Your task to perform on an android device: create a new album in the google photos Image 0: 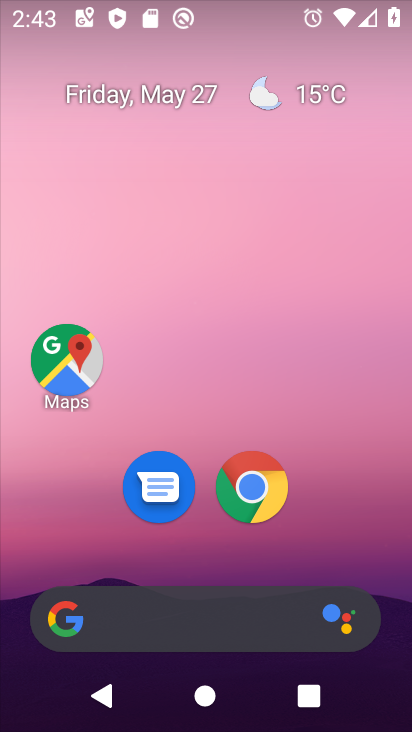
Step 0: drag from (192, 539) to (194, 222)
Your task to perform on an android device: create a new album in the google photos Image 1: 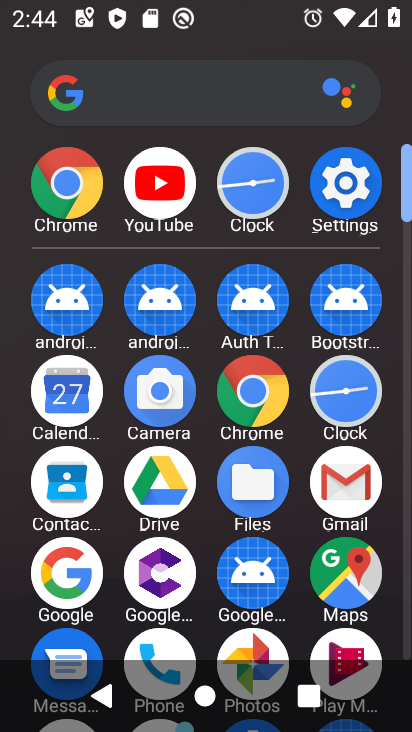
Step 1: drag from (212, 603) to (211, 238)
Your task to perform on an android device: create a new album in the google photos Image 2: 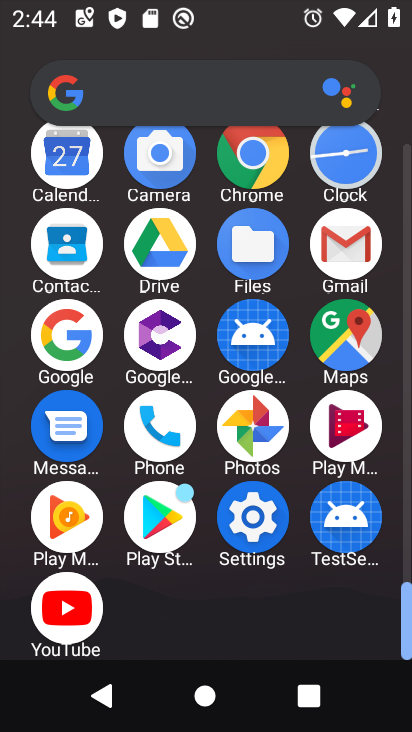
Step 2: click (260, 420)
Your task to perform on an android device: create a new album in the google photos Image 3: 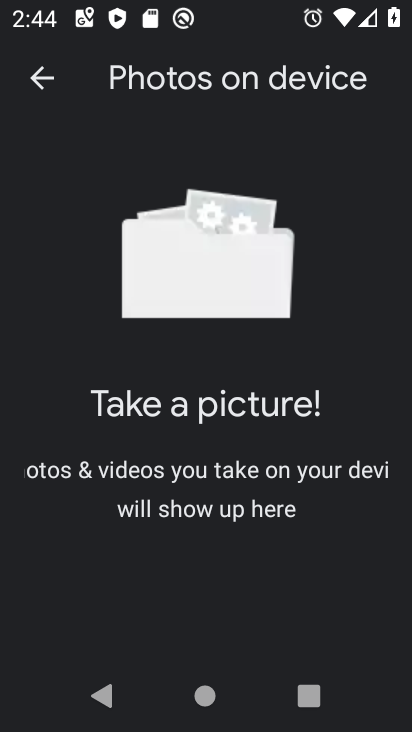
Step 3: click (40, 103)
Your task to perform on an android device: create a new album in the google photos Image 4: 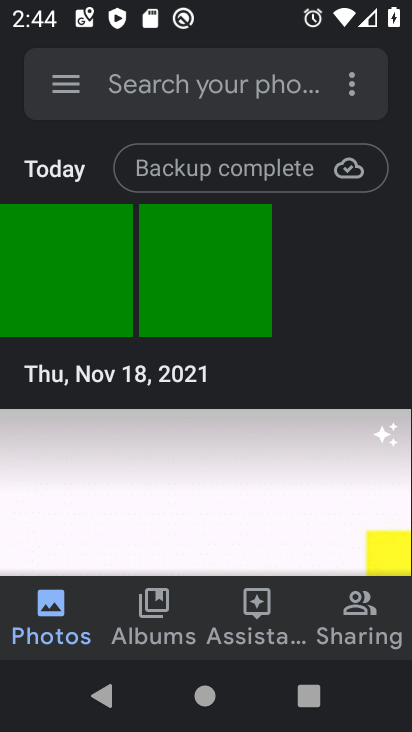
Step 4: click (231, 388)
Your task to perform on an android device: create a new album in the google photos Image 5: 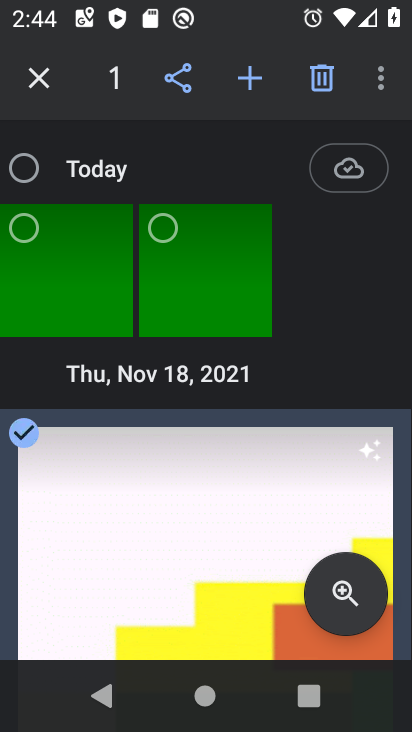
Step 5: click (249, 98)
Your task to perform on an android device: create a new album in the google photos Image 6: 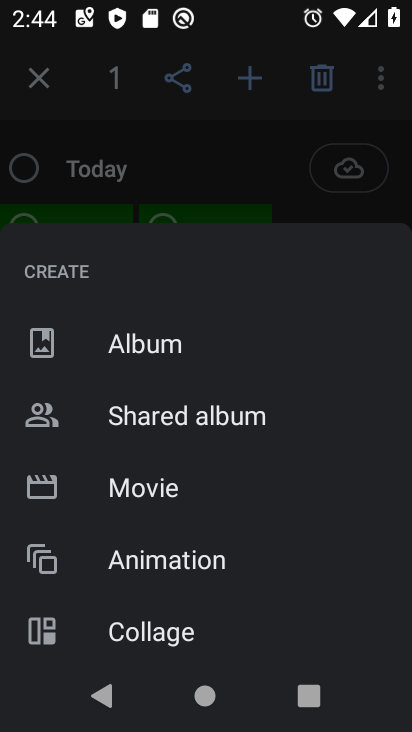
Step 6: click (153, 343)
Your task to perform on an android device: create a new album in the google photos Image 7: 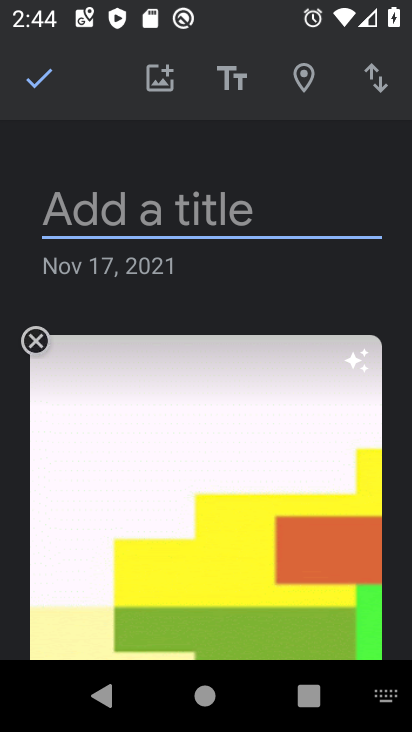
Step 7: type "kmmk"
Your task to perform on an android device: create a new album in the google photos Image 8: 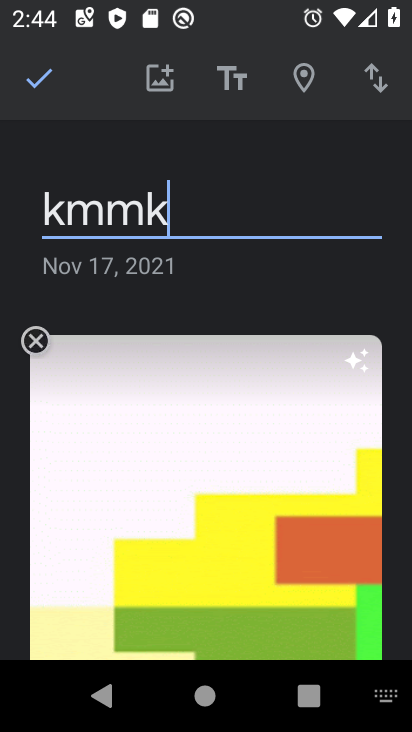
Step 8: click (42, 75)
Your task to perform on an android device: create a new album in the google photos Image 9: 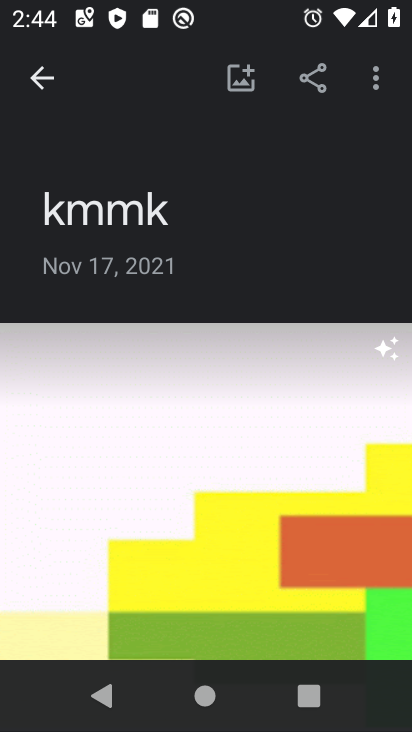
Step 9: task complete